Your task to perform on an android device: Do I have any events this weekend? Image 0: 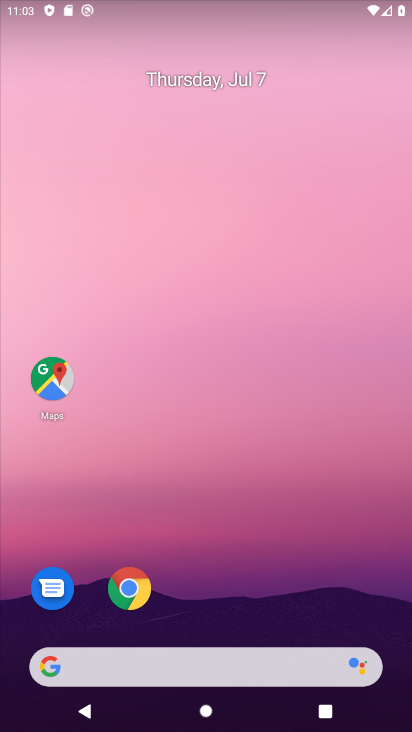
Step 0: drag from (285, 603) to (288, 145)
Your task to perform on an android device: Do I have any events this weekend? Image 1: 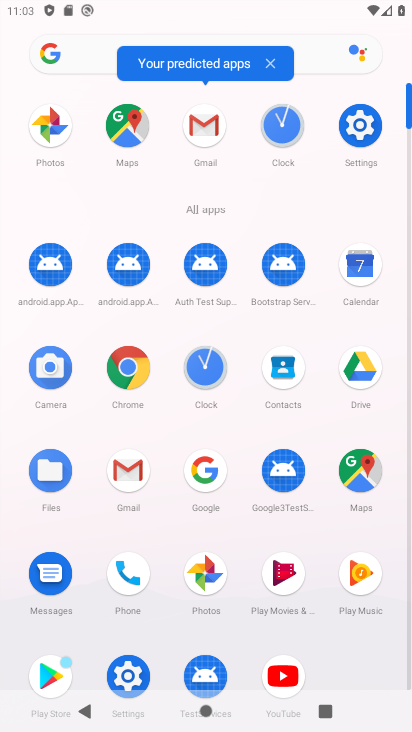
Step 1: click (354, 272)
Your task to perform on an android device: Do I have any events this weekend? Image 2: 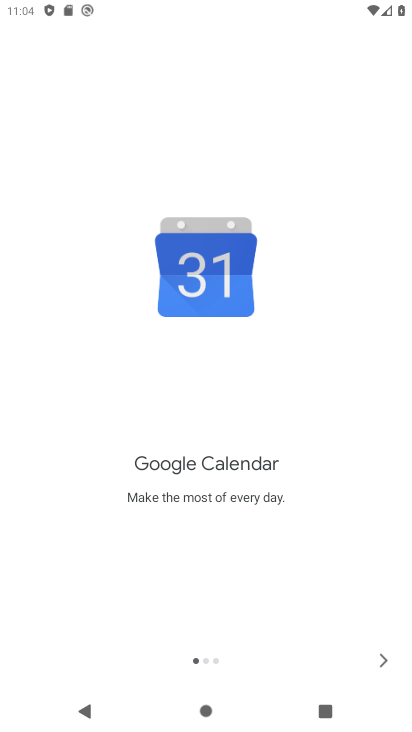
Step 2: click (383, 657)
Your task to perform on an android device: Do I have any events this weekend? Image 3: 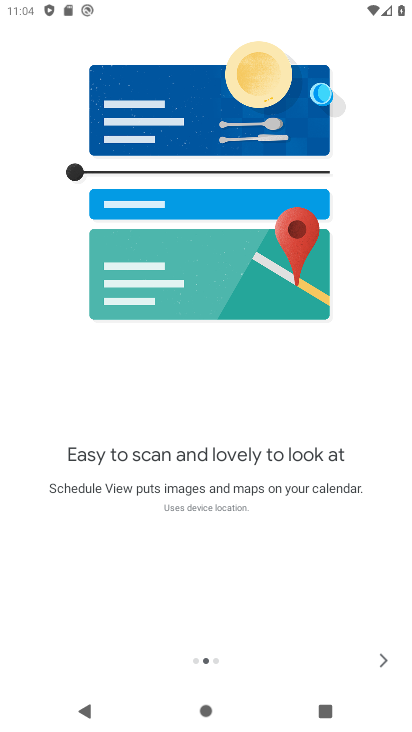
Step 3: click (383, 657)
Your task to perform on an android device: Do I have any events this weekend? Image 4: 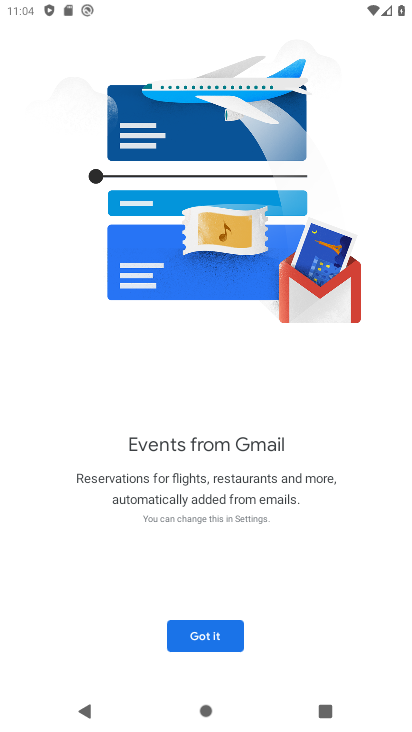
Step 4: click (224, 632)
Your task to perform on an android device: Do I have any events this weekend? Image 5: 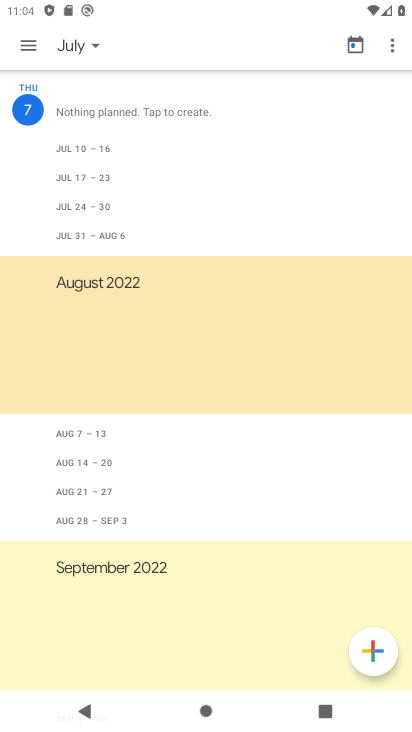
Step 5: click (79, 45)
Your task to perform on an android device: Do I have any events this weekend? Image 6: 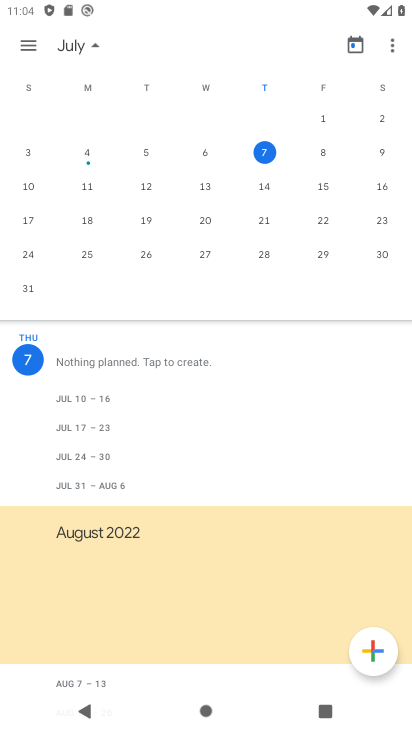
Step 6: click (383, 157)
Your task to perform on an android device: Do I have any events this weekend? Image 7: 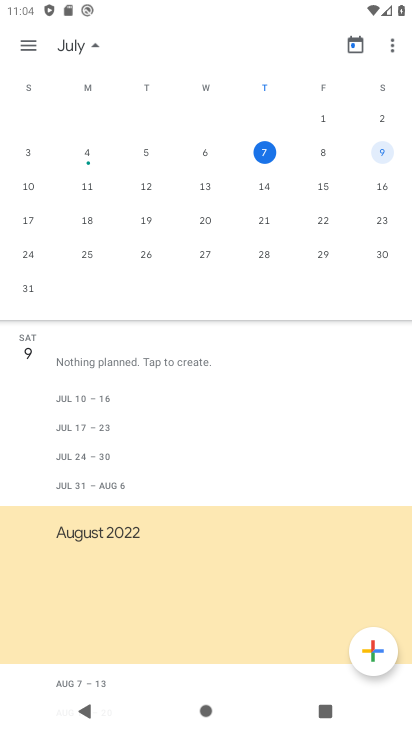
Step 7: click (31, 190)
Your task to perform on an android device: Do I have any events this weekend? Image 8: 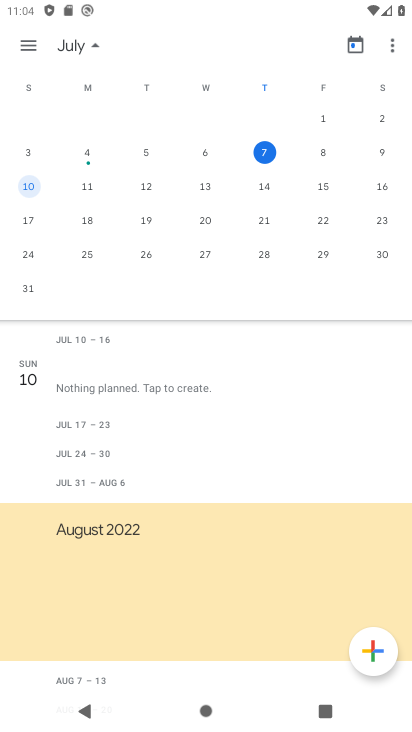
Step 8: task complete